Your task to perform on an android device: turn smart compose on in the gmail app Image 0: 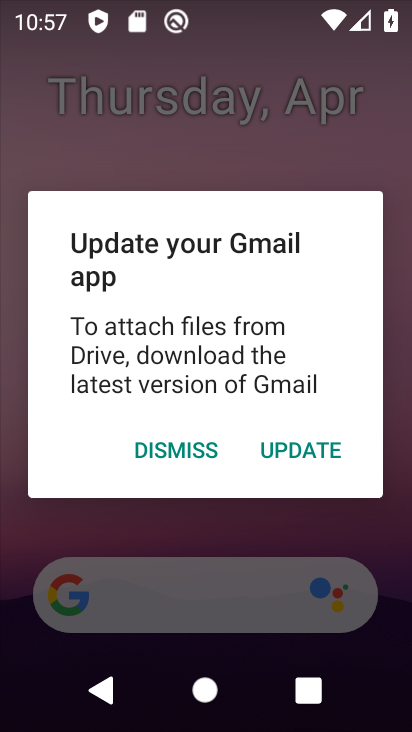
Step 0: press home button
Your task to perform on an android device: turn smart compose on in the gmail app Image 1: 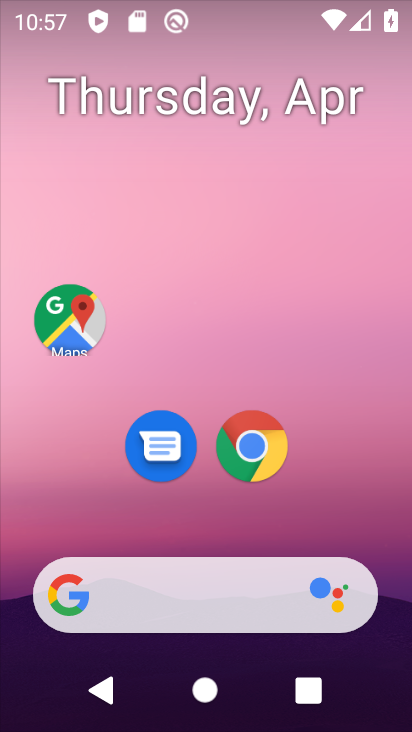
Step 1: drag from (208, 533) to (251, 166)
Your task to perform on an android device: turn smart compose on in the gmail app Image 2: 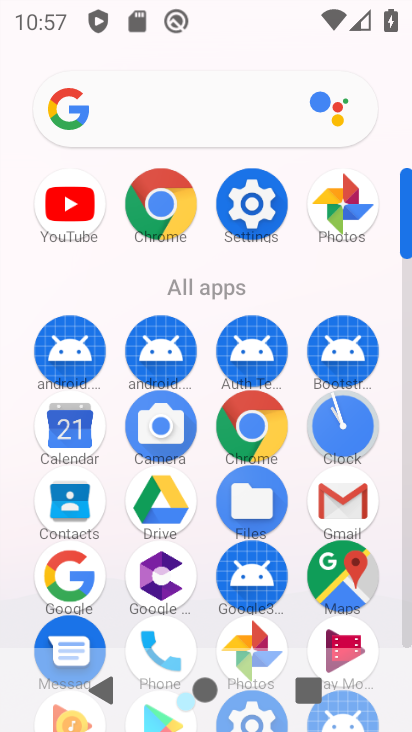
Step 2: click (335, 482)
Your task to perform on an android device: turn smart compose on in the gmail app Image 3: 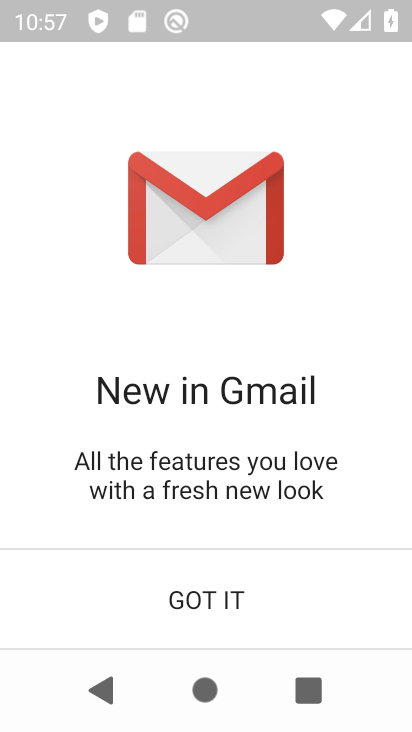
Step 3: click (211, 587)
Your task to perform on an android device: turn smart compose on in the gmail app Image 4: 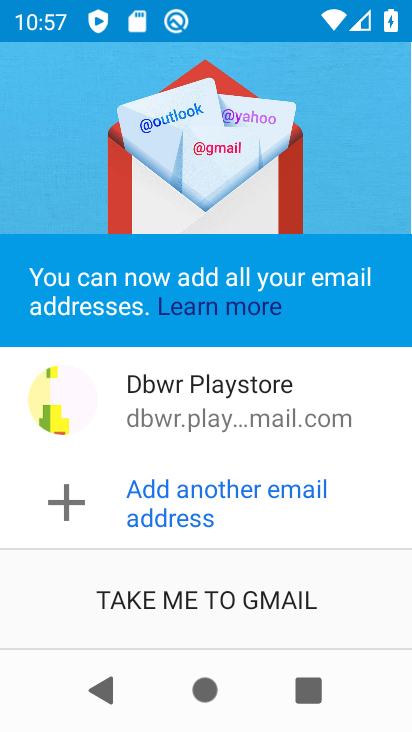
Step 4: click (189, 612)
Your task to perform on an android device: turn smart compose on in the gmail app Image 5: 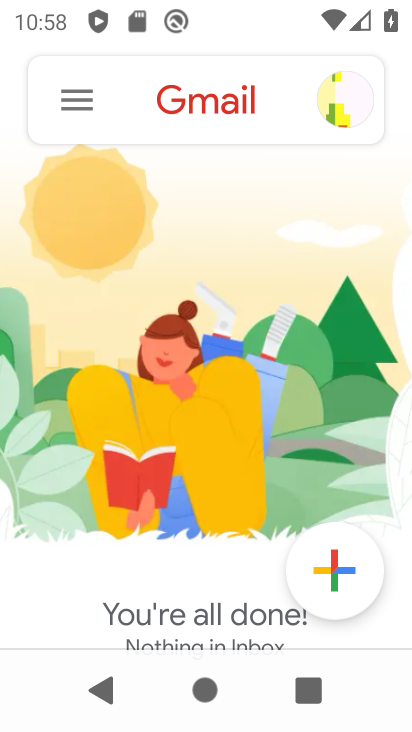
Step 5: click (74, 91)
Your task to perform on an android device: turn smart compose on in the gmail app Image 6: 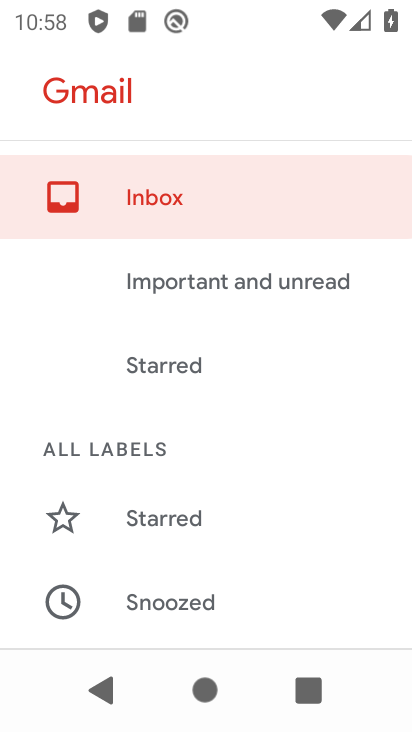
Step 6: drag from (113, 543) to (268, 16)
Your task to perform on an android device: turn smart compose on in the gmail app Image 7: 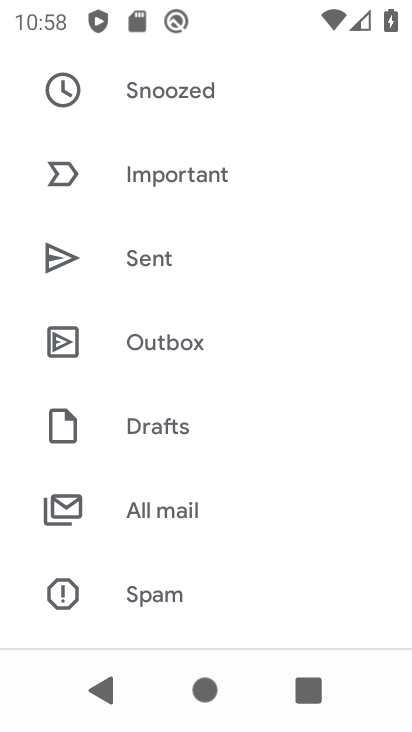
Step 7: drag from (119, 557) to (258, 78)
Your task to perform on an android device: turn smart compose on in the gmail app Image 8: 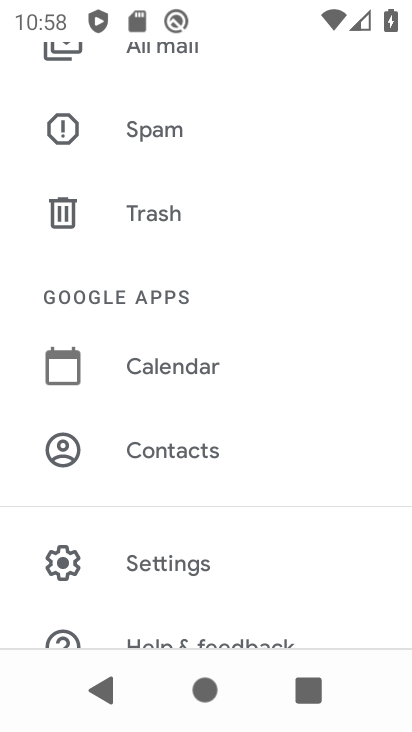
Step 8: click (218, 566)
Your task to perform on an android device: turn smart compose on in the gmail app Image 9: 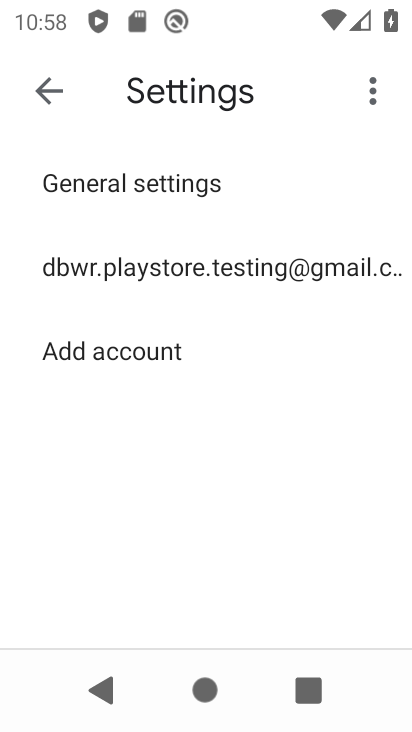
Step 9: click (206, 273)
Your task to perform on an android device: turn smart compose on in the gmail app Image 10: 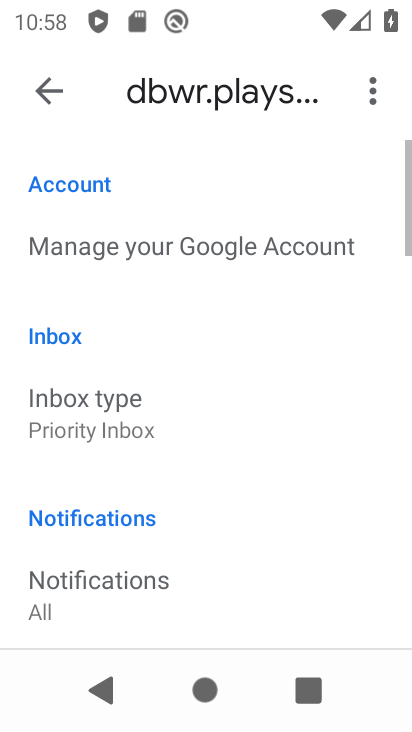
Step 10: task complete